Your task to perform on an android device: Turn on the flashlight Image 0: 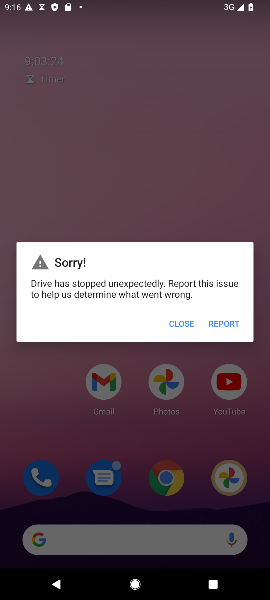
Step 0: click (179, 327)
Your task to perform on an android device: Turn on the flashlight Image 1: 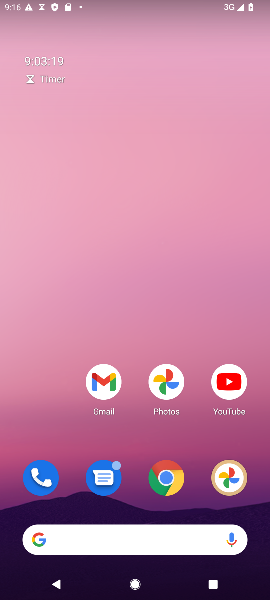
Step 1: drag from (117, 4) to (123, 221)
Your task to perform on an android device: Turn on the flashlight Image 2: 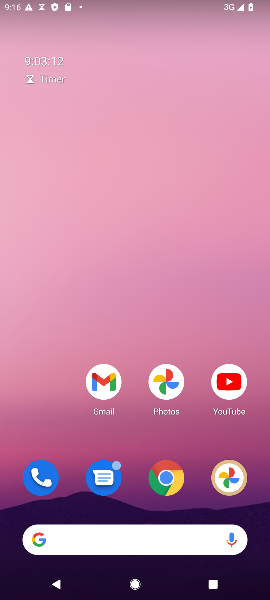
Step 2: drag from (130, 7) to (267, 504)
Your task to perform on an android device: Turn on the flashlight Image 3: 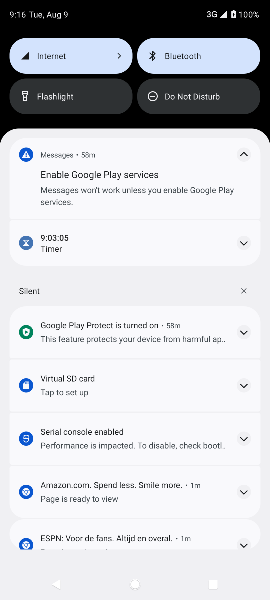
Step 3: drag from (95, 122) to (141, 575)
Your task to perform on an android device: Turn on the flashlight Image 4: 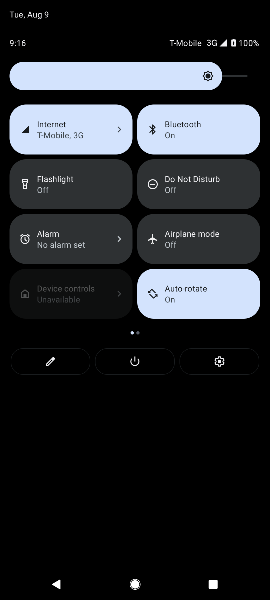
Step 4: click (28, 204)
Your task to perform on an android device: Turn on the flashlight Image 5: 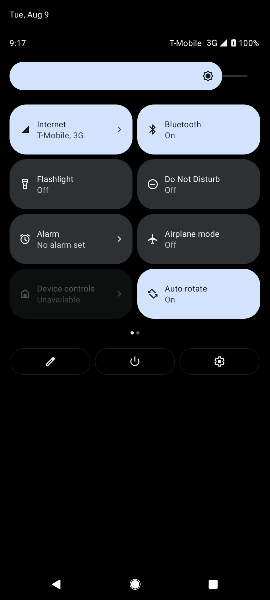
Step 5: task complete